Your task to perform on an android device: Open eBay Image 0: 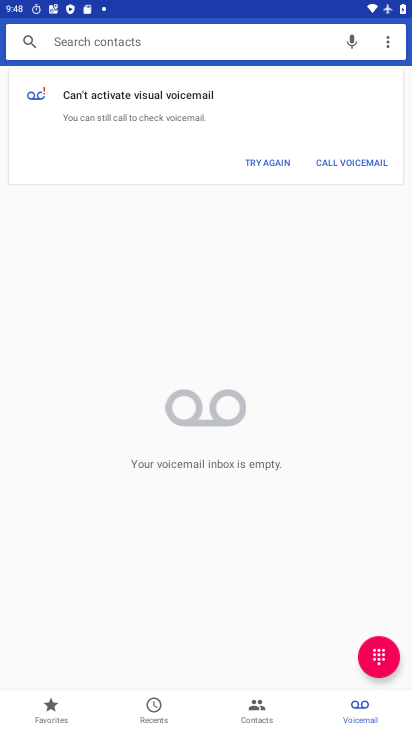
Step 0: press home button
Your task to perform on an android device: Open eBay Image 1: 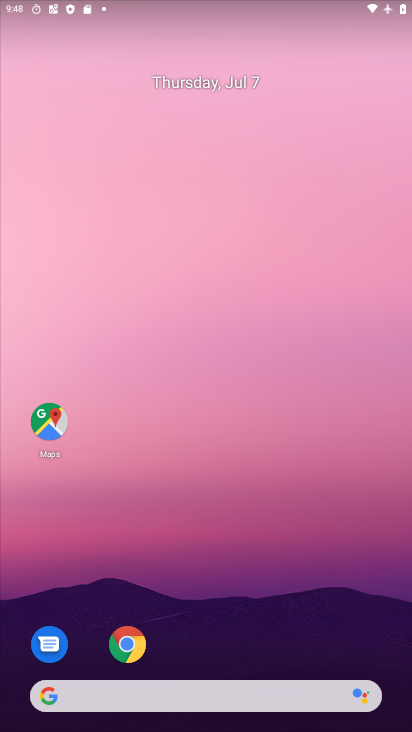
Step 1: drag from (256, 617) to (240, 137)
Your task to perform on an android device: Open eBay Image 2: 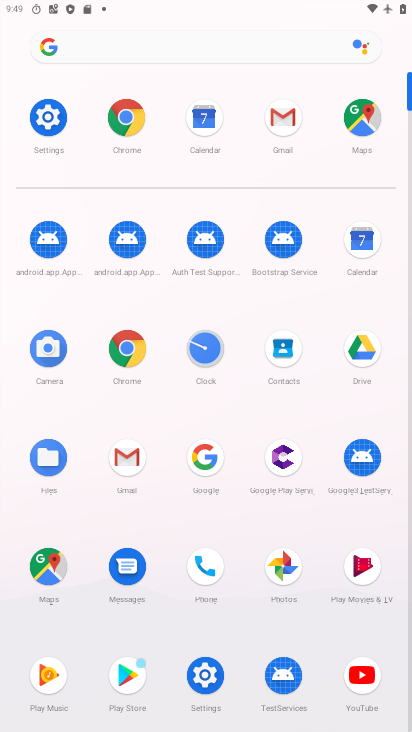
Step 2: click (119, 343)
Your task to perform on an android device: Open eBay Image 3: 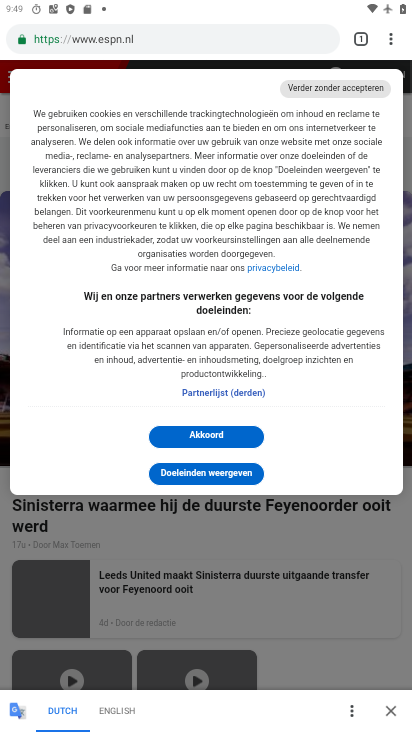
Step 3: click (219, 30)
Your task to perform on an android device: Open eBay Image 4: 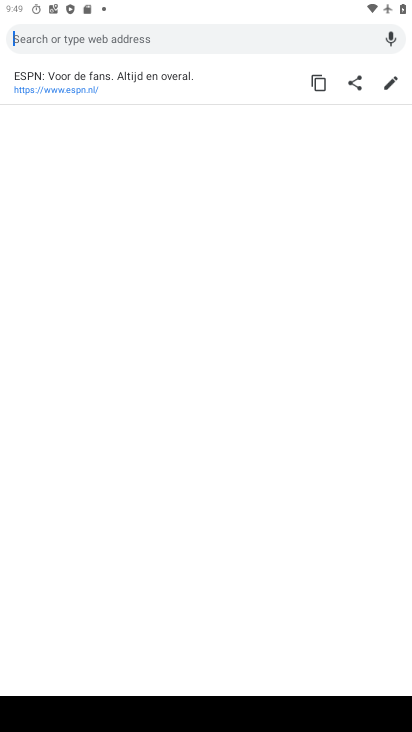
Step 4: type "ebay"
Your task to perform on an android device: Open eBay Image 5: 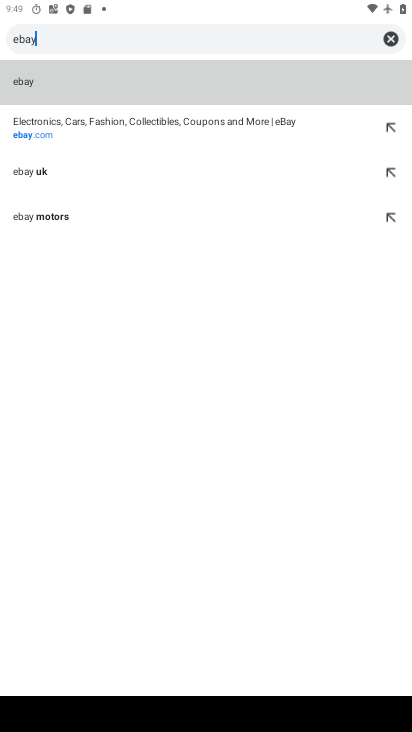
Step 5: click (23, 131)
Your task to perform on an android device: Open eBay Image 6: 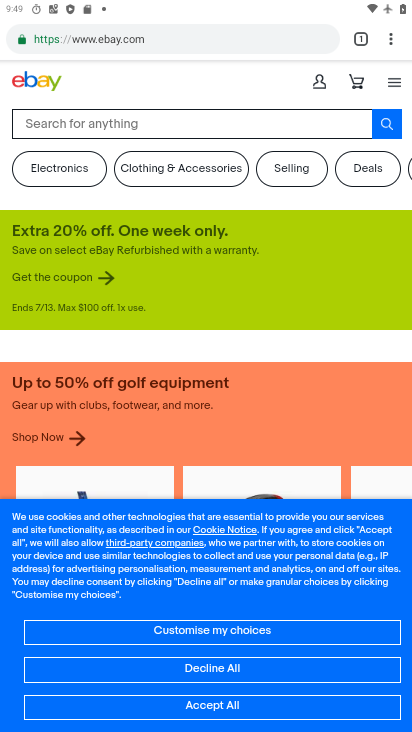
Step 6: task complete